Your task to perform on an android device: open app "Adobe Express: Graphic Design" (install if not already installed) Image 0: 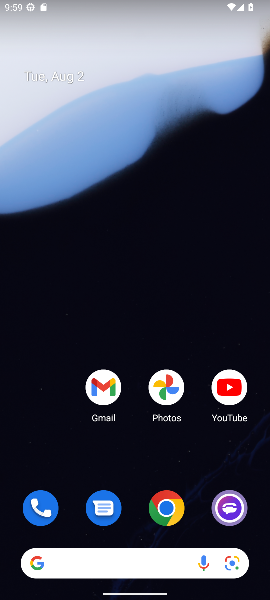
Step 0: drag from (142, 428) to (145, 12)
Your task to perform on an android device: open app "Adobe Express: Graphic Design" (install if not already installed) Image 1: 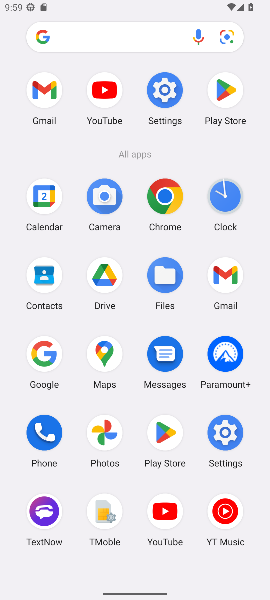
Step 1: click (223, 103)
Your task to perform on an android device: open app "Adobe Express: Graphic Design" (install if not already installed) Image 2: 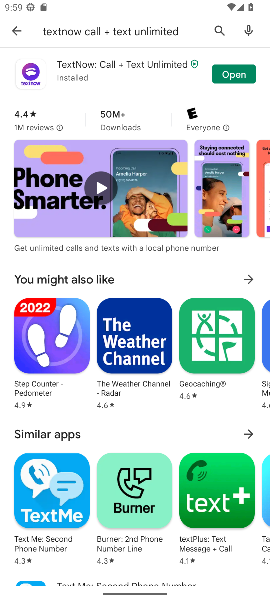
Step 2: click (216, 28)
Your task to perform on an android device: open app "Adobe Express: Graphic Design" (install if not already installed) Image 3: 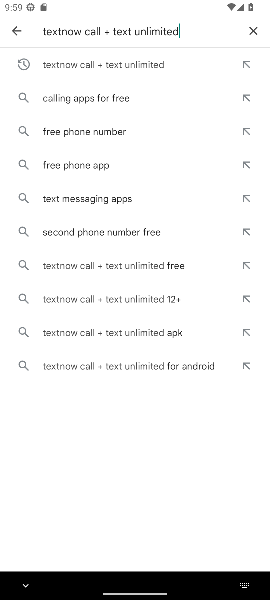
Step 3: click (243, 32)
Your task to perform on an android device: open app "Adobe Express: Graphic Design" (install if not already installed) Image 4: 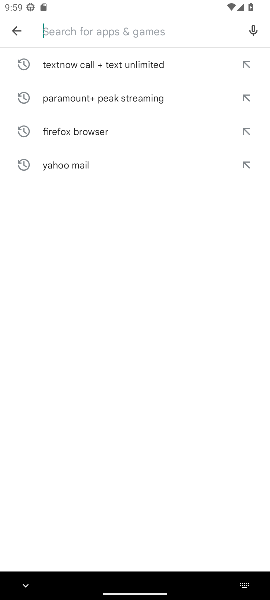
Step 4: type "Adobe Express: Graphic Design"
Your task to perform on an android device: open app "Adobe Express: Graphic Design" (install if not already installed) Image 5: 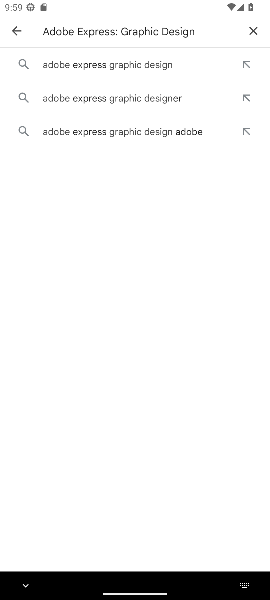
Step 5: click (109, 74)
Your task to perform on an android device: open app "Adobe Express: Graphic Design" (install if not already installed) Image 6: 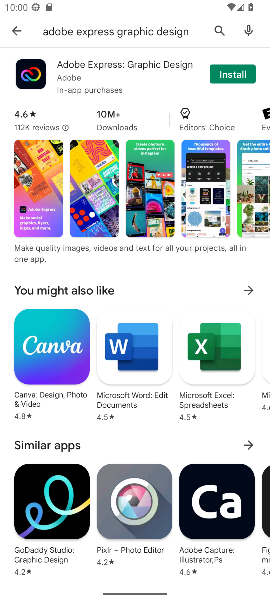
Step 6: click (229, 78)
Your task to perform on an android device: open app "Adobe Express: Graphic Design" (install if not already installed) Image 7: 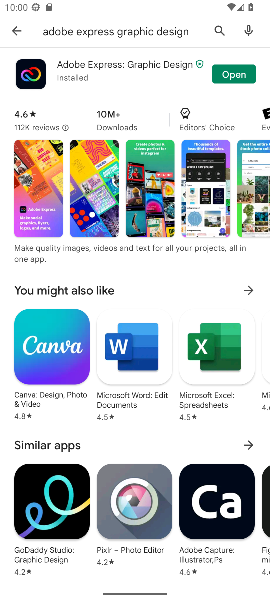
Step 7: click (227, 80)
Your task to perform on an android device: open app "Adobe Express: Graphic Design" (install if not already installed) Image 8: 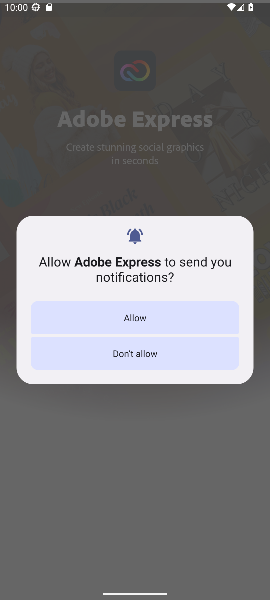
Step 8: task complete